Your task to perform on an android device: turn off improve location accuracy Image 0: 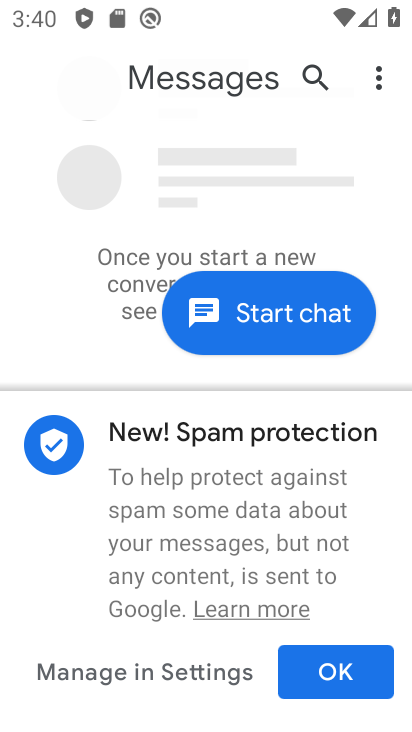
Step 0: press home button
Your task to perform on an android device: turn off improve location accuracy Image 1: 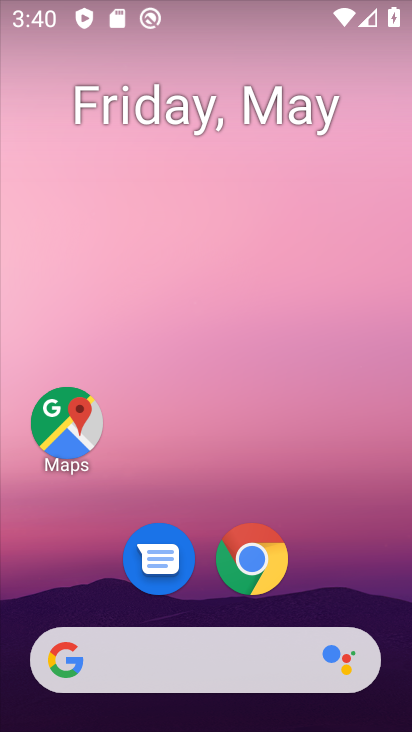
Step 1: drag from (327, 565) to (325, 105)
Your task to perform on an android device: turn off improve location accuracy Image 2: 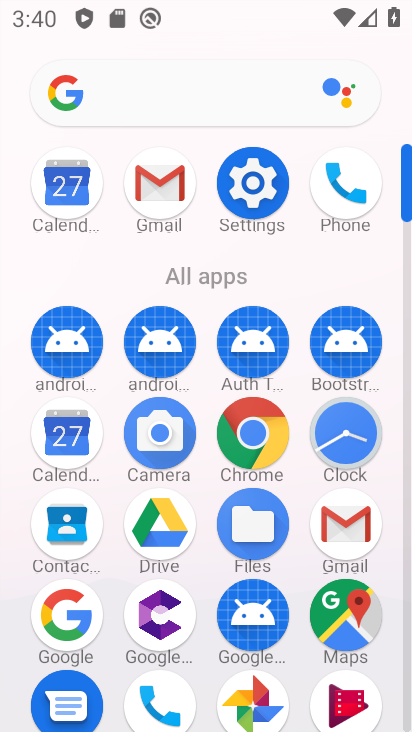
Step 2: click (245, 185)
Your task to perform on an android device: turn off improve location accuracy Image 3: 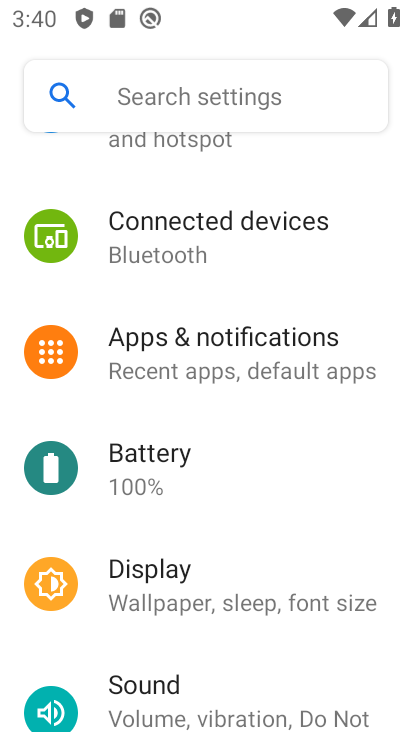
Step 3: drag from (237, 342) to (320, 68)
Your task to perform on an android device: turn off improve location accuracy Image 4: 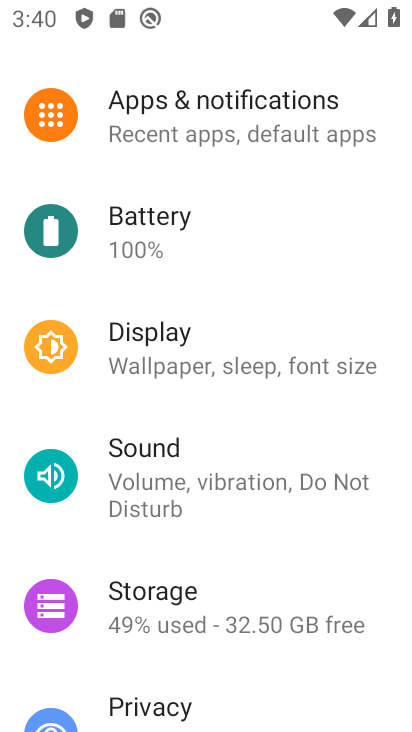
Step 4: drag from (246, 594) to (285, 200)
Your task to perform on an android device: turn off improve location accuracy Image 5: 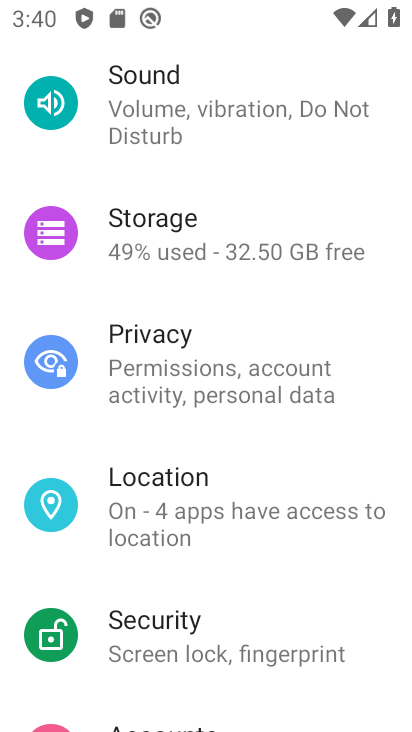
Step 5: click (258, 496)
Your task to perform on an android device: turn off improve location accuracy Image 6: 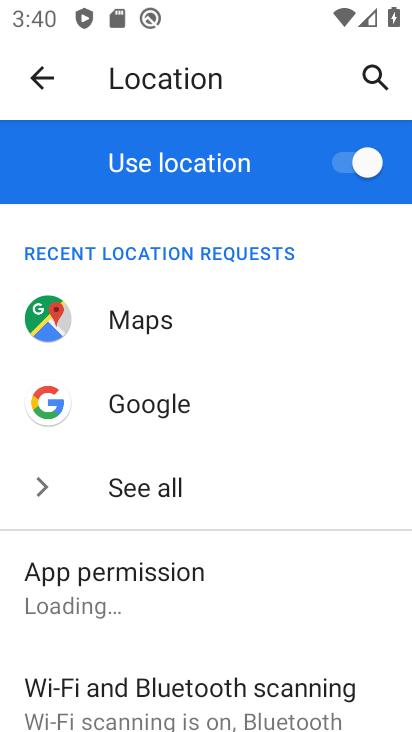
Step 6: drag from (261, 592) to (310, 211)
Your task to perform on an android device: turn off improve location accuracy Image 7: 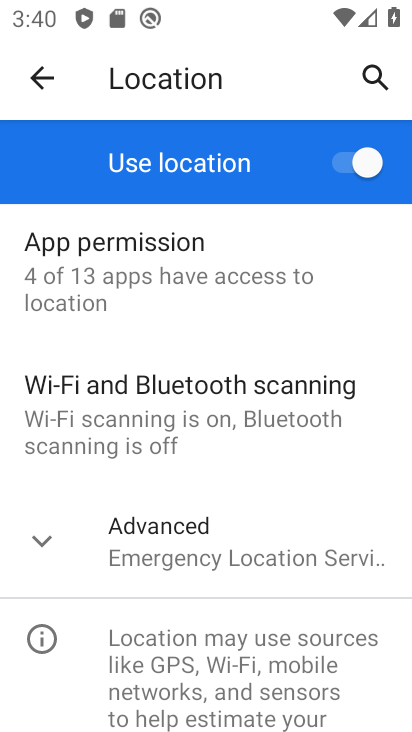
Step 7: click (246, 537)
Your task to perform on an android device: turn off improve location accuracy Image 8: 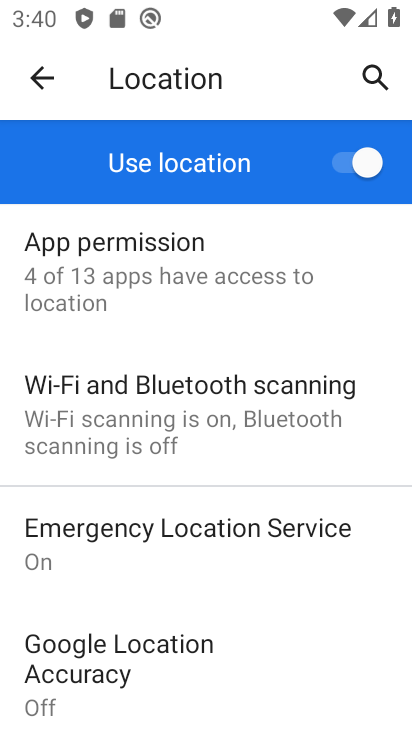
Step 8: click (227, 677)
Your task to perform on an android device: turn off improve location accuracy Image 9: 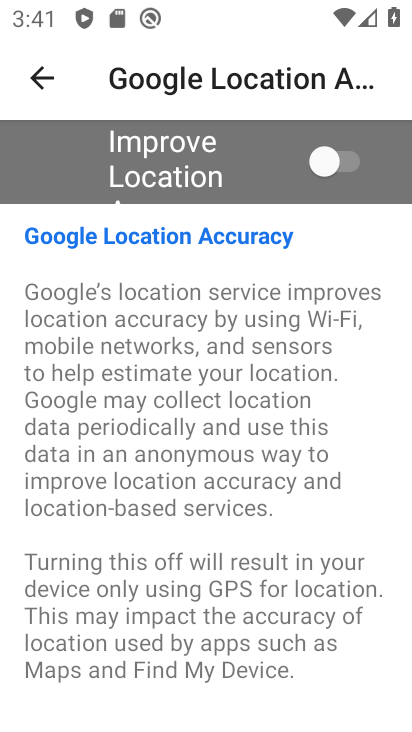
Step 9: task complete